Your task to perform on an android device: Play the last video I watched on Youtube Image 0: 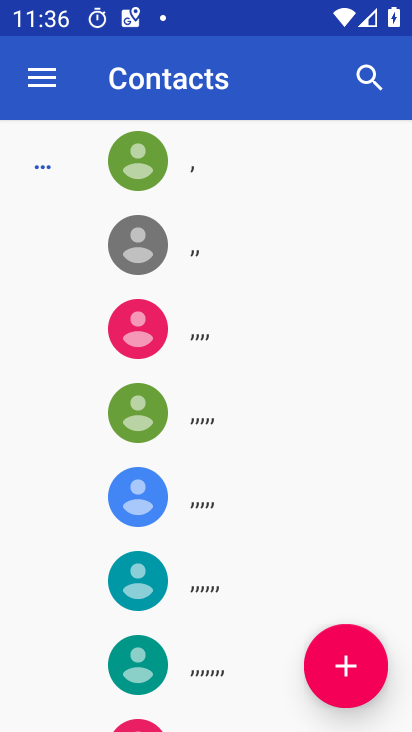
Step 0: press home button
Your task to perform on an android device: Play the last video I watched on Youtube Image 1: 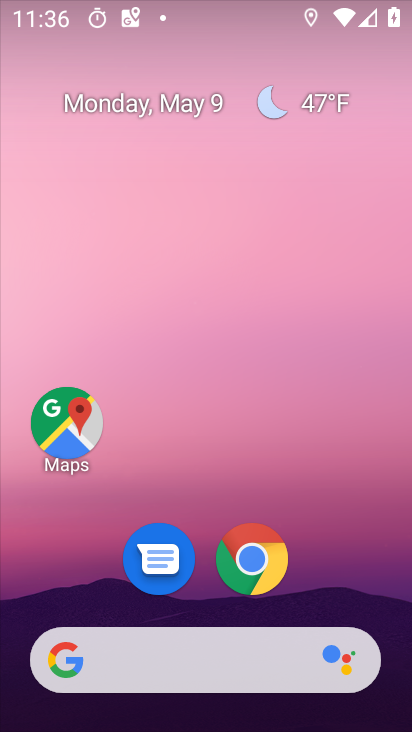
Step 1: drag from (345, 562) to (404, 0)
Your task to perform on an android device: Play the last video I watched on Youtube Image 2: 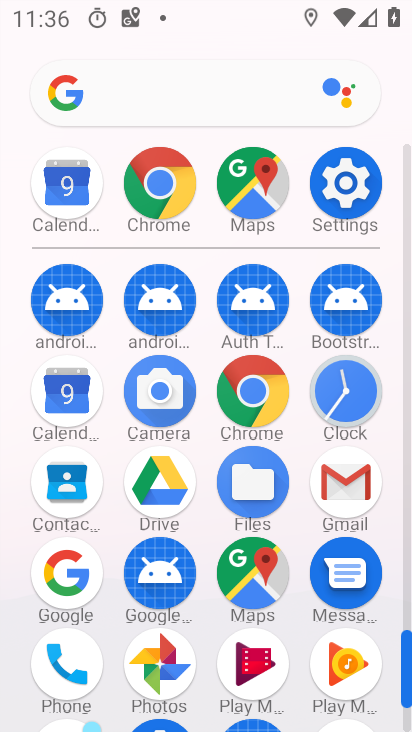
Step 2: drag from (411, 673) to (406, 722)
Your task to perform on an android device: Play the last video I watched on Youtube Image 3: 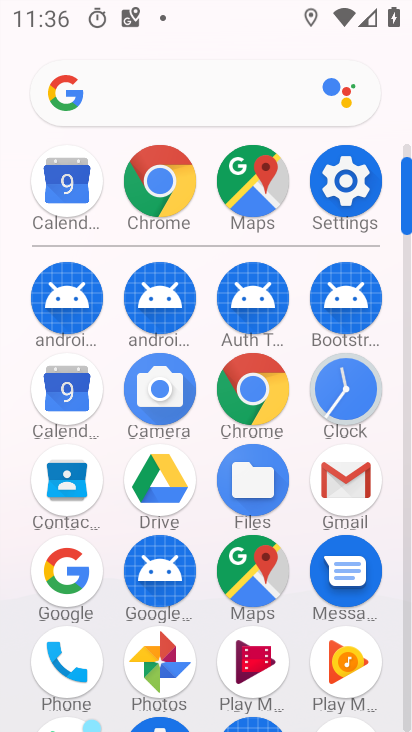
Step 3: drag from (360, 683) to (371, 279)
Your task to perform on an android device: Play the last video I watched on Youtube Image 4: 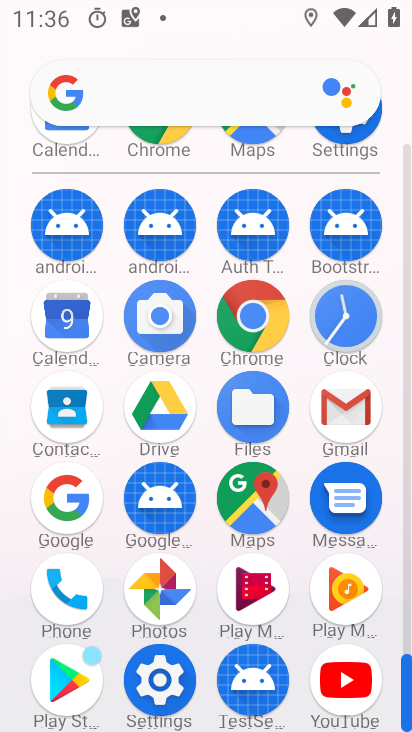
Step 4: click (336, 683)
Your task to perform on an android device: Play the last video I watched on Youtube Image 5: 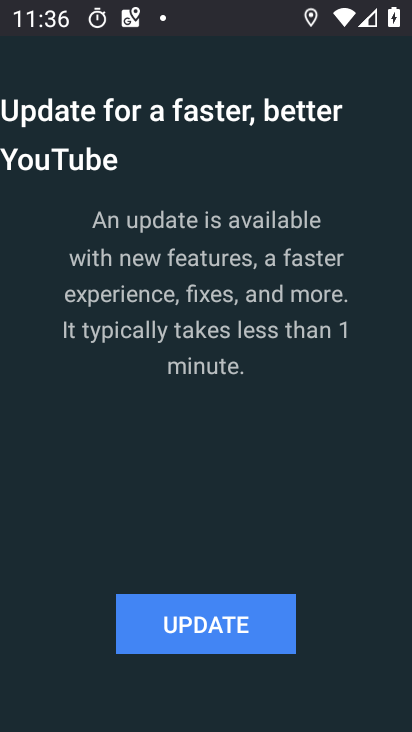
Step 5: click (226, 617)
Your task to perform on an android device: Play the last video I watched on Youtube Image 6: 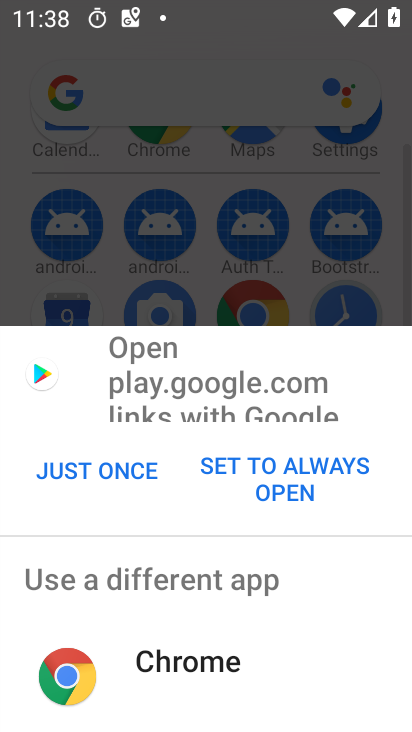
Step 6: click (107, 475)
Your task to perform on an android device: Play the last video I watched on Youtube Image 7: 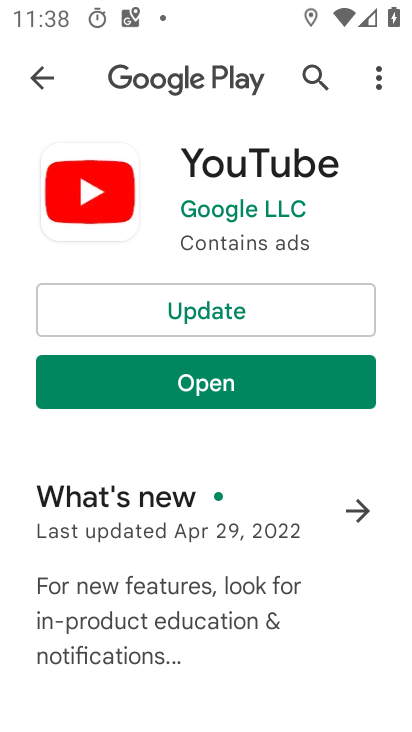
Step 7: click (213, 317)
Your task to perform on an android device: Play the last video I watched on Youtube Image 8: 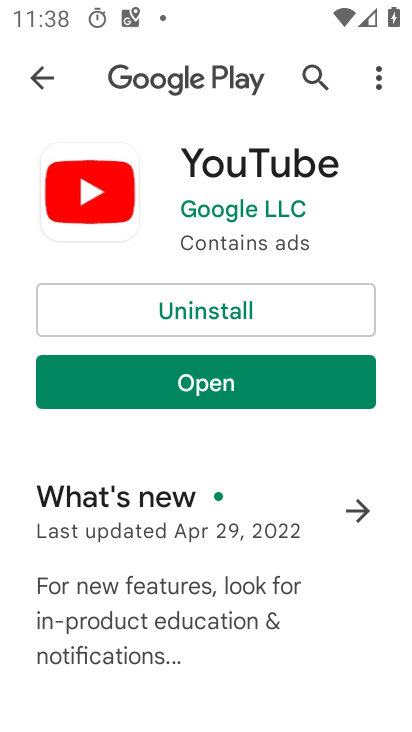
Step 8: click (229, 392)
Your task to perform on an android device: Play the last video I watched on Youtube Image 9: 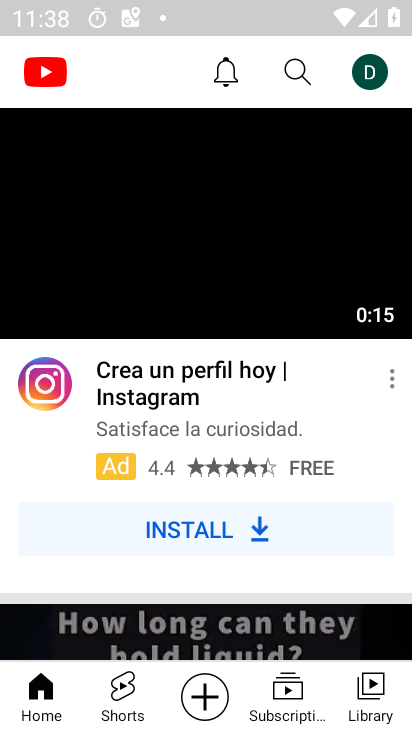
Step 9: drag from (252, 580) to (228, 305)
Your task to perform on an android device: Play the last video I watched on Youtube Image 10: 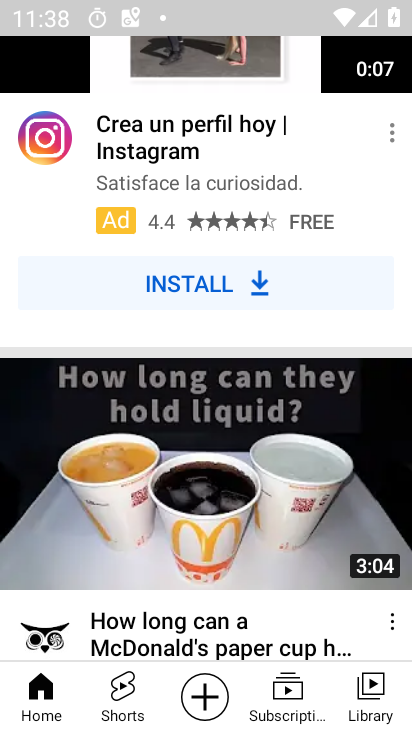
Step 10: click (382, 701)
Your task to perform on an android device: Play the last video I watched on Youtube Image 11: 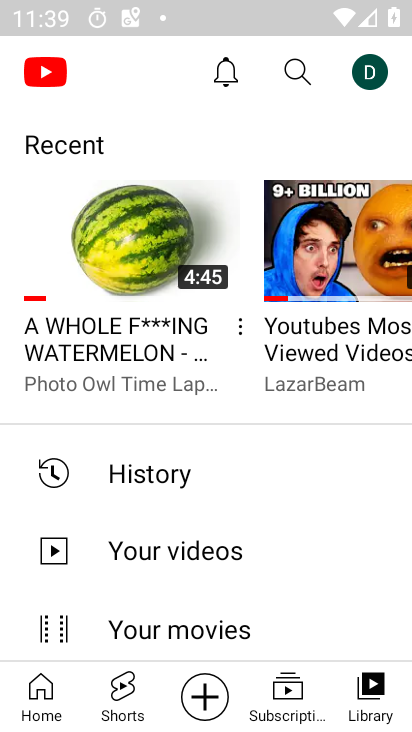
Step 11: click (148, 254)
Your task to perform on an android device: Play the last video I watched on Youtube Image 12: 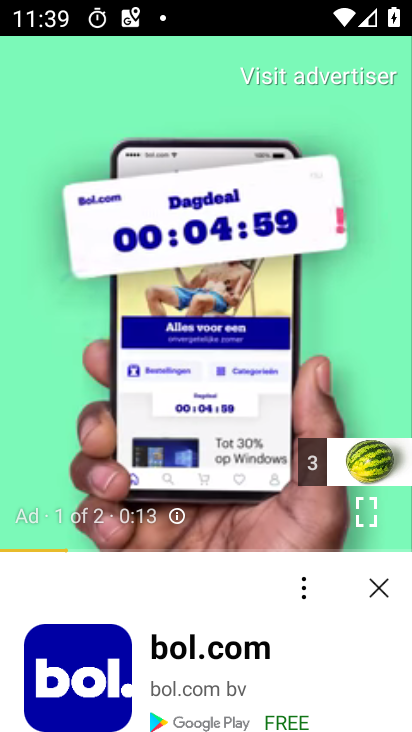
Step 12: task complete